Your task to perform on an android device: Open Chrome and go to settings Image 0: 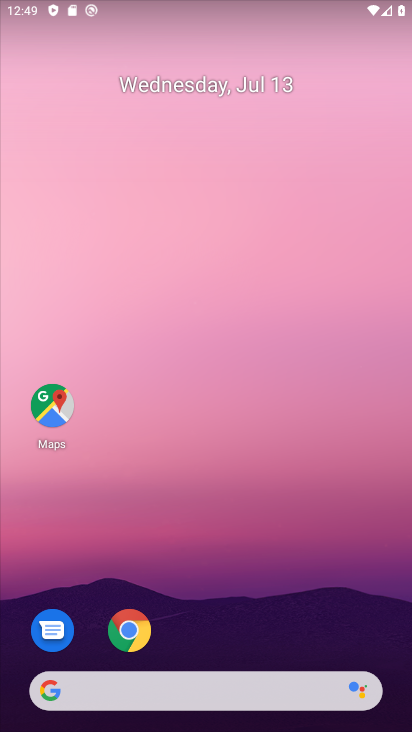
Step 0: drag from (285, 556) to (402, 90)
Your task to perform on an android device: Open Chrome and go to settings Image 1: 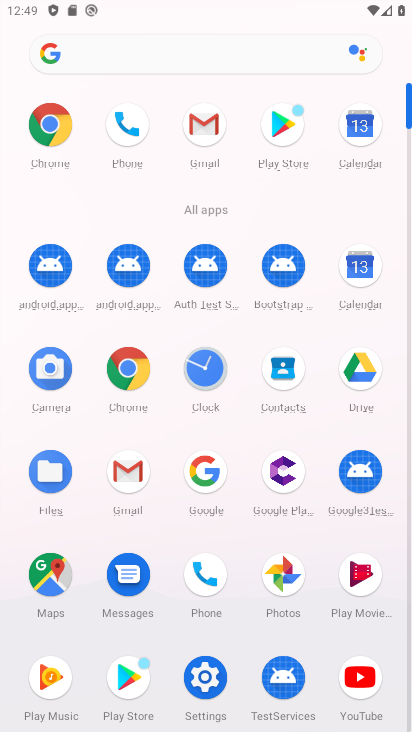
Step 1: click (70, 124)
Your task to perform on an android device: Open Chrome and go to settings Image 2: 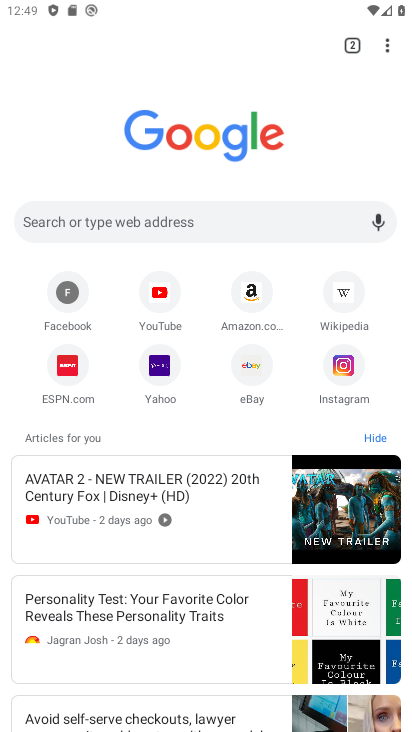
Step 2: task complete